Your task to perform on an android device: Go to Yahoo.com Image 0: 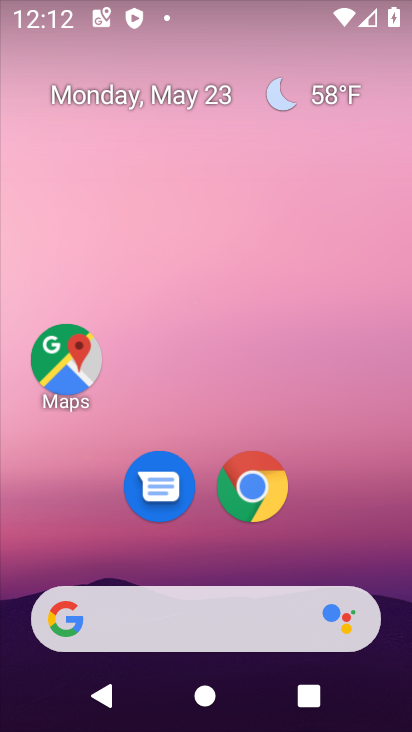
Step 0: click (255, 483)
Your task to perform on an android device: Go to Yahoo.com Image 1: 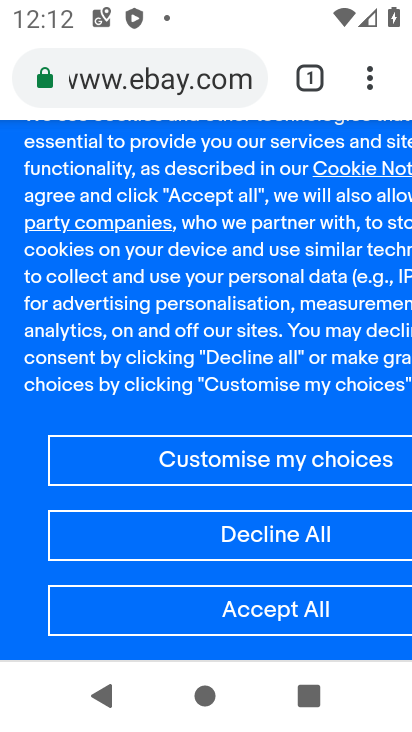
Step 1: drag from (188, 76) to (151, 413)
Your task to perform on an android device: Go to Yahoo.com Image 2: 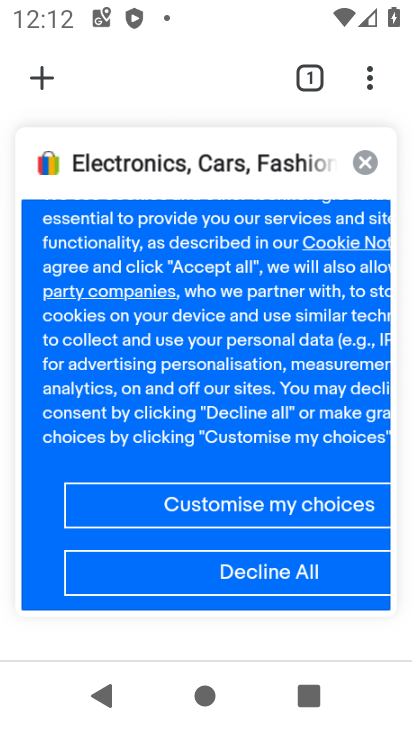
Step 2: click (40, 75)
Your task to perform on an android device: Go to Yahoo.com Image 3: 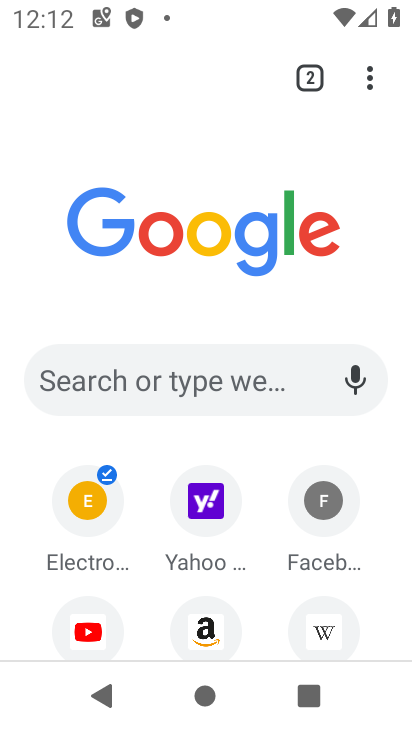
Step 3: click (124, 379)
Your task to perform on an android device: Go to Yahoo.com Image 4: 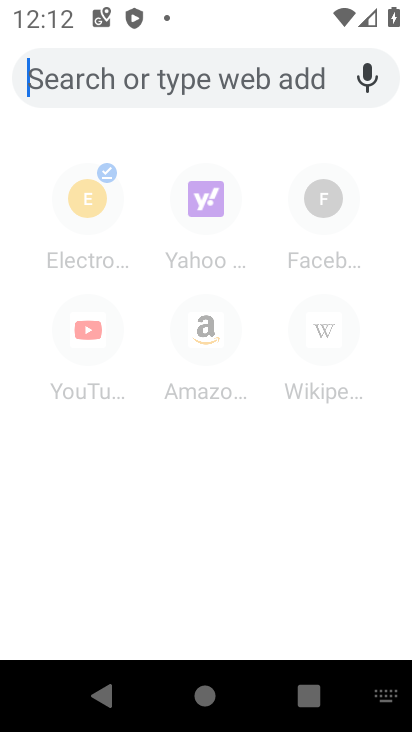
Step 4: type "yahoo.com"
Your task to perform on an android device: Go to Yahoo.com Image 5: 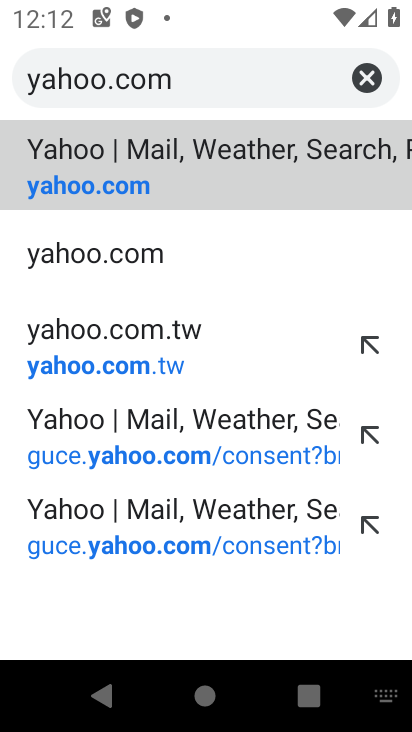
Step 5: click (84, 181)
Your task to perform on an android device: Go to Yahoo.com Image 6: 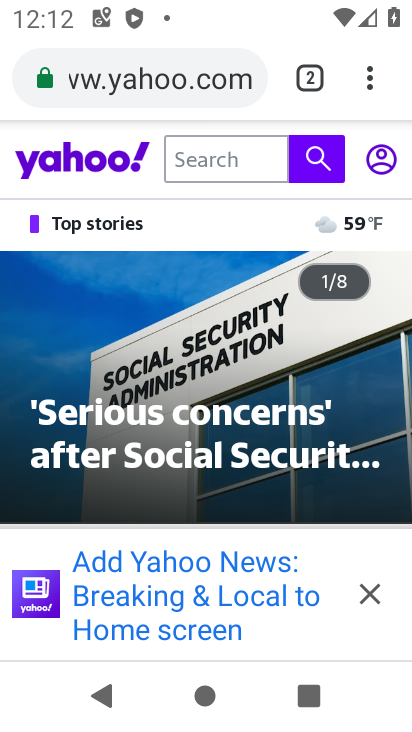
Step 6: task complete